Your task to perform on an android device: turn off picture-in-picture Image 0: 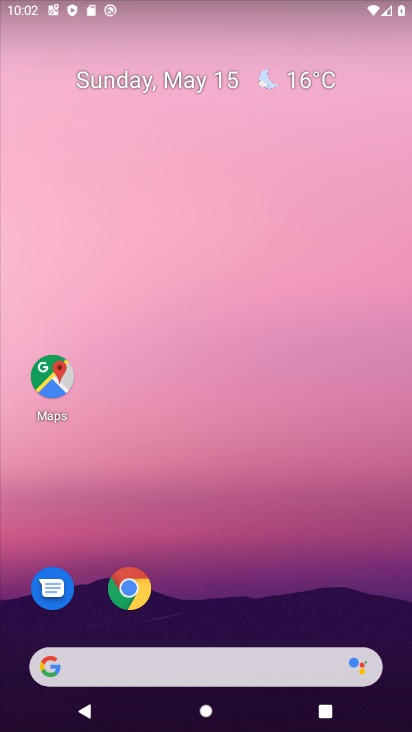
Step 0: drag from (176, 521) to (228, 19)
Your task to perform on an android device: turn off picture-in-picture Image 1: 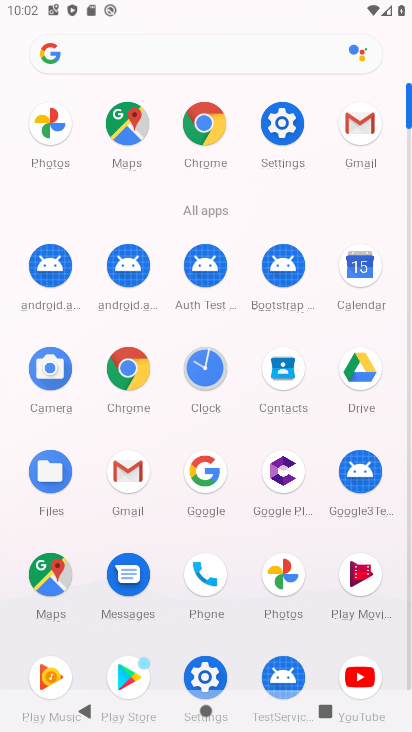
Step 1: click (282, 133)
Your task to perform on an android device: turn off picture-in-picture Image 2: 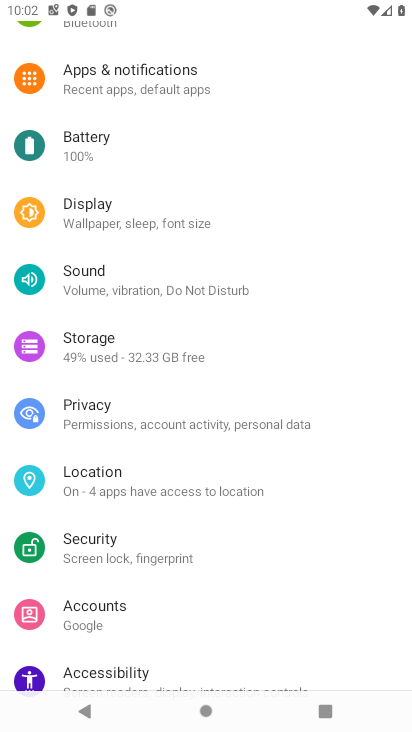
Step 2: click (185, 85)
Your task to perform on an android device: turn off picture-in-picture Image 3: 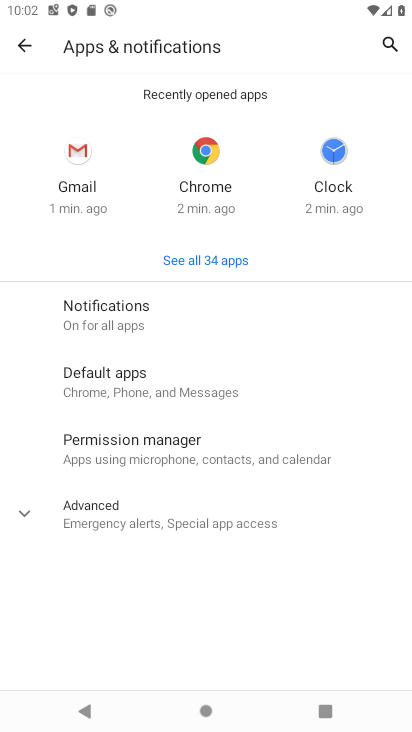
Step 3: click (112, 519)
Your task to perform on an android device: turn off picture-in-picture Image 4: 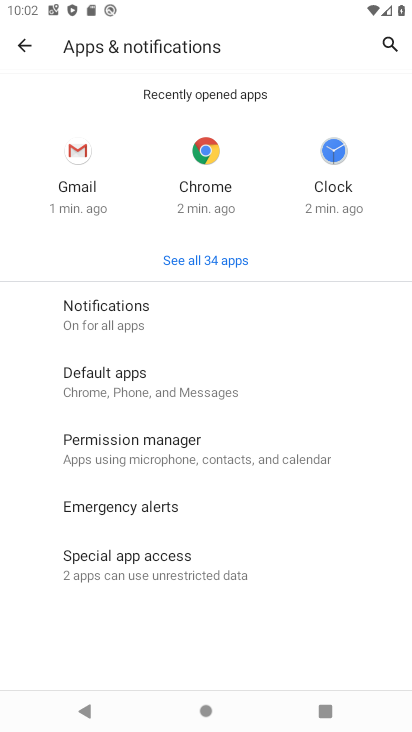
Step 4: click (117, 552)
Your task to perform on an android device: turn off picture-in-picture Image 5: 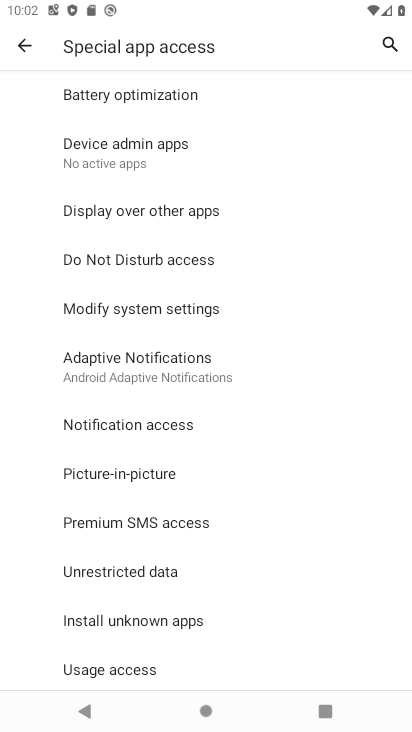
Step 5: click (129, 483)
Your task to perform on an android device: turn off picture-in-picture Image 6: 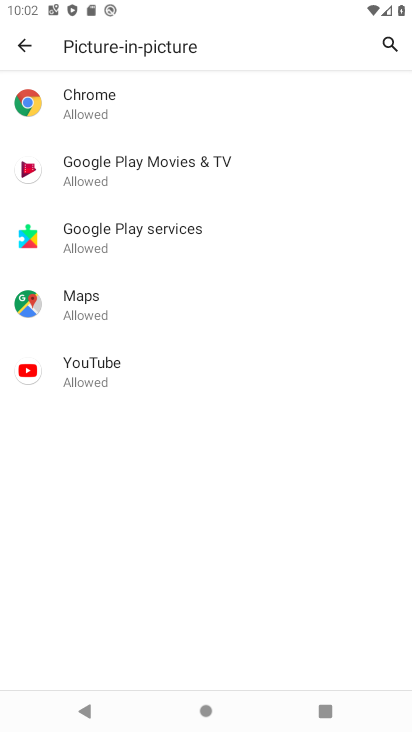
Step 6: click (155, 381)
Your task to perform on an android device: turn off picture-in-picture Image 7: 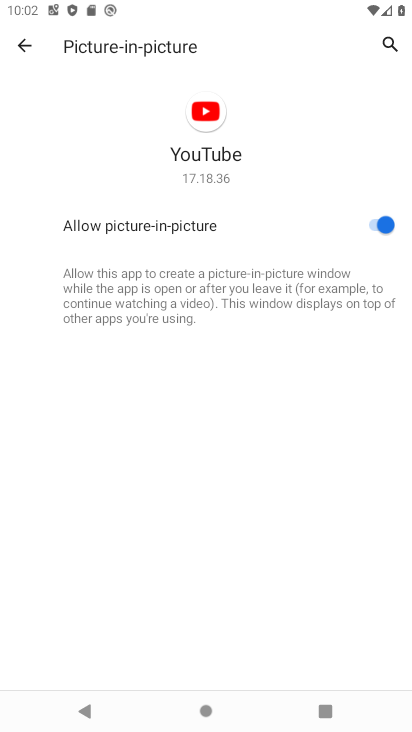
Step 7: click (383, 220)
Your task to perform on an android device: turn off picture-in-picture Image 8: 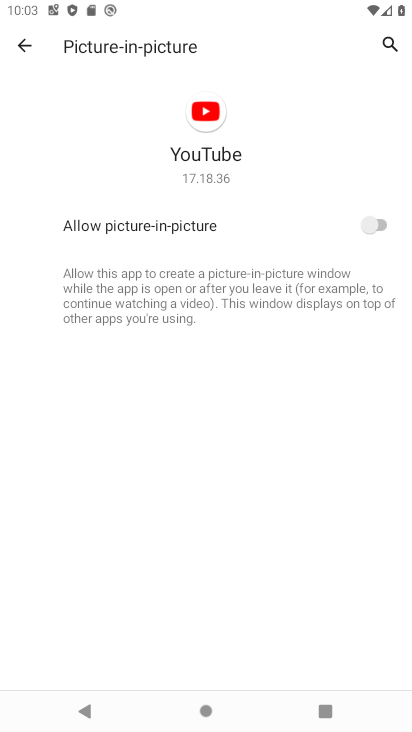
Step 8: task complete